Your task to perform on an android device: find snoozed emails in the gmail app Image 0: 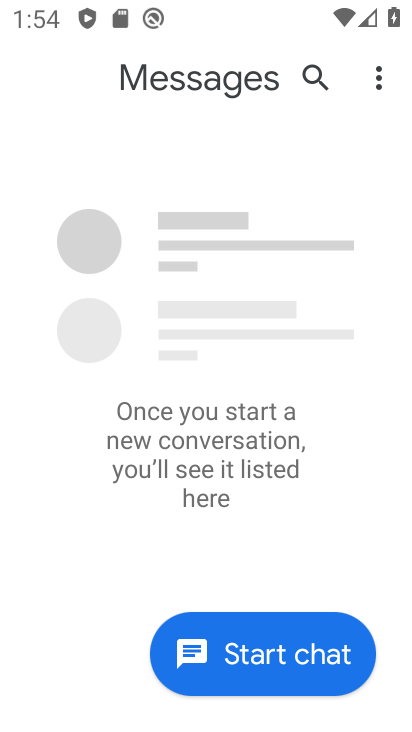
Step 0: press home button
Your task to perform on an android device: find snoozed emails in the gmail app Image 1: 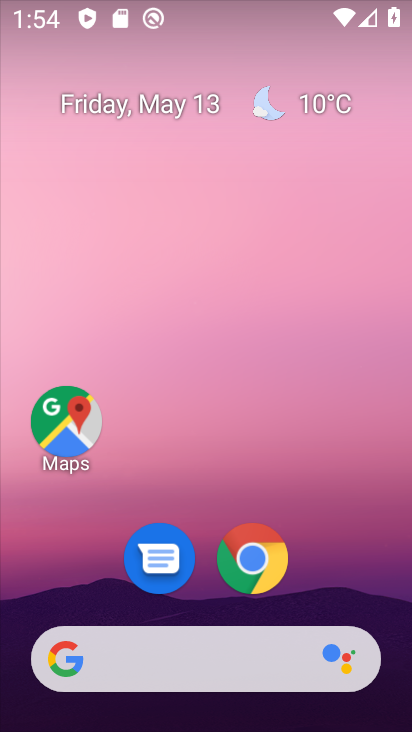
Step 1: drag from (205, 598) to (203, 212)
Your task to perform on an android device: find snoozed emails in the gmail app Image 2: 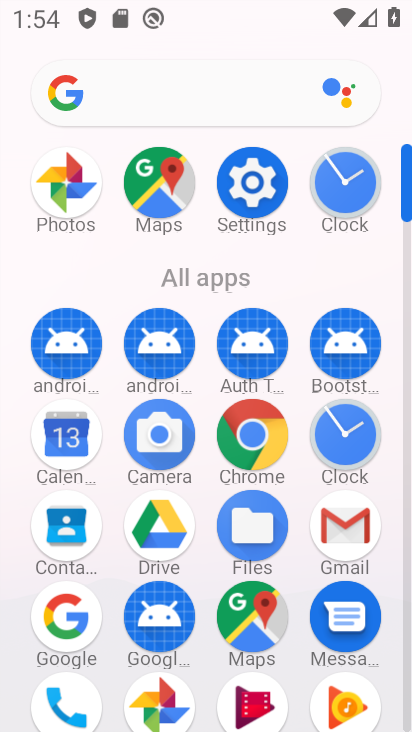
Step 2: click (321, 502)
Your task to perform on an android device: find snoozed emails in the gmail app Image 3: 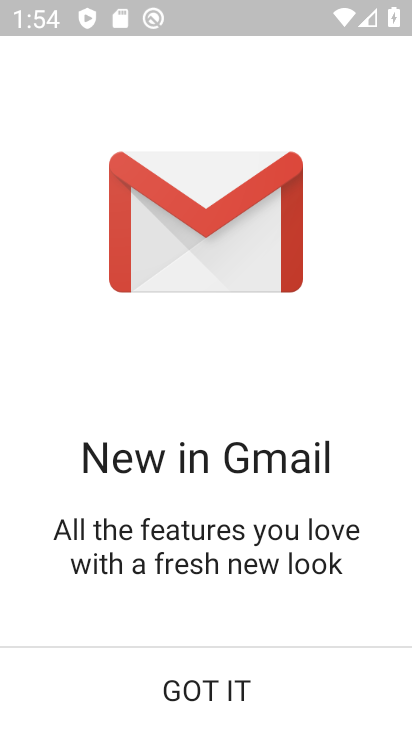
Step 3: click (256, 665)
Your task to perform on an android device: find snoozed emails in the gmail app Image 4: 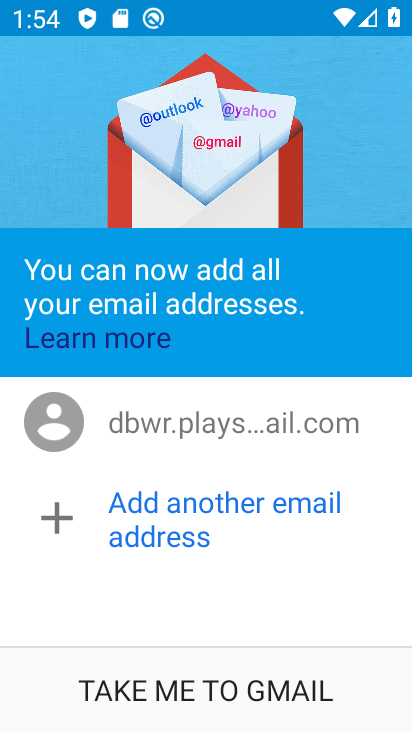
Step 4: click (256, 665)
Your task to perform on an android device: find snoozed emails in the gmail app Image 5: 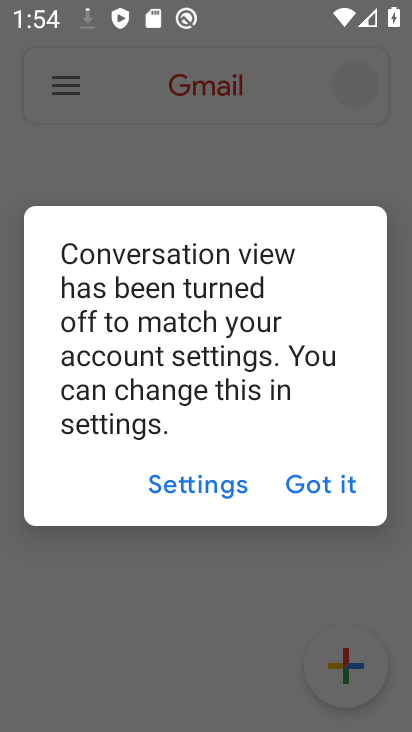
Step 5: click (297, 487)
Your task to perform on an android device: find snoozed emails in the gmail app Image 6: 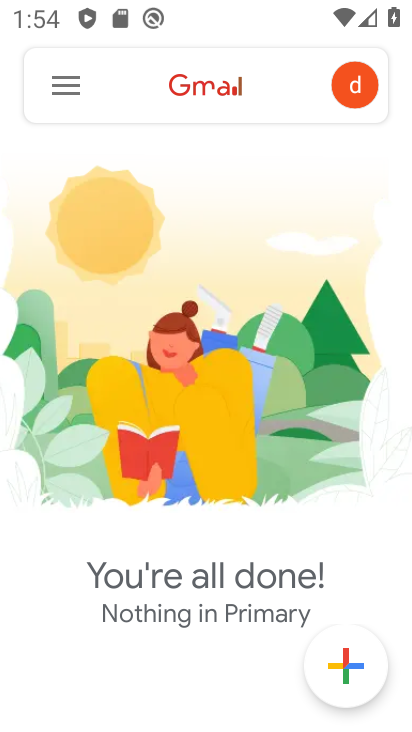
Step 6: click (59, 74)
Your task to perform on an android device: find snoozed emails in the gmail app Image 7: 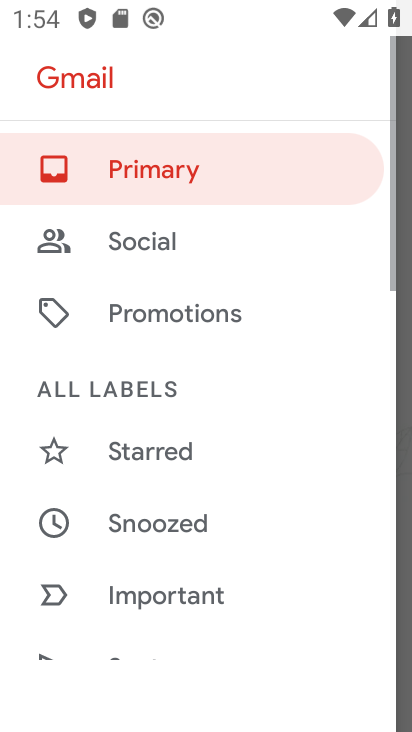
Step 7: click (131, 531)
Your task to perform on an android device: find snoozed emails in the gmail app Image 8: 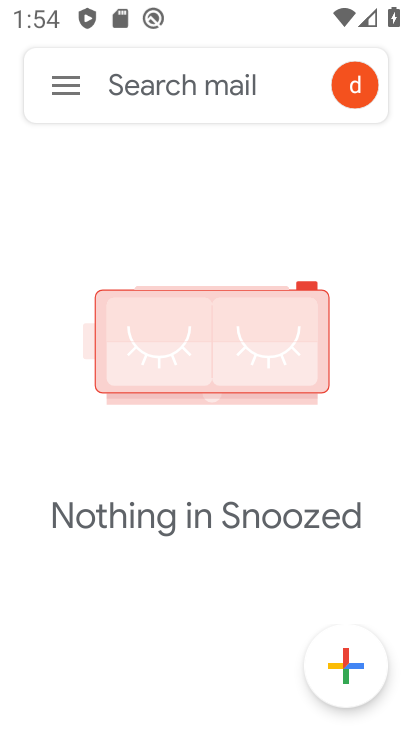
Step 8: task complete